Your task to perform on an android device: Open the calendar and show me this week's events? Image 0: 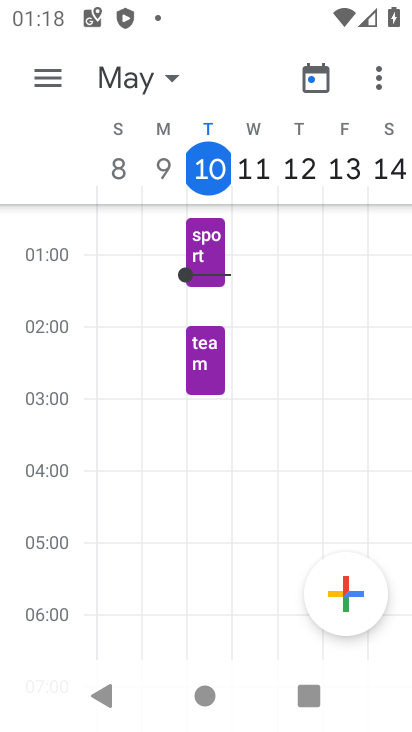
Step 0: drag from (194, 495) to (286, 210)
Your task to perform on an android device: Open the calendar and show me this week's events? Image 1: 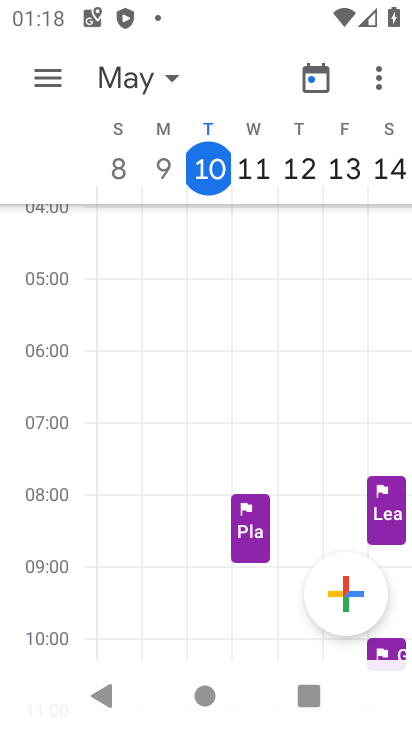
Step 1: task complete